Your task to perform on an android device: set the timer Image 0: 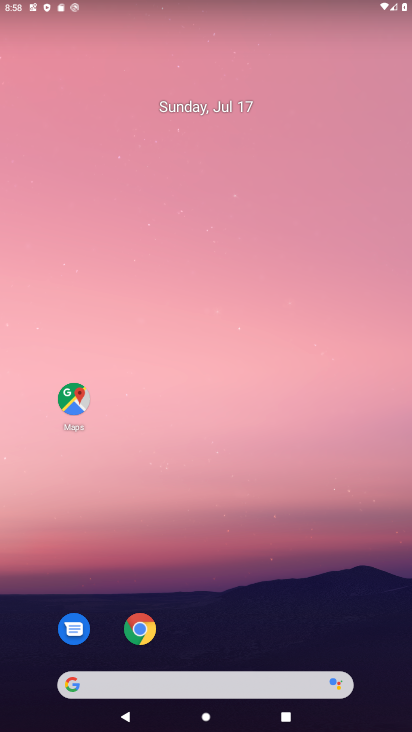
Step 0: drag from (238, 730) to (203, 60)
Your task to perform on an android device: set the timer Image 1: 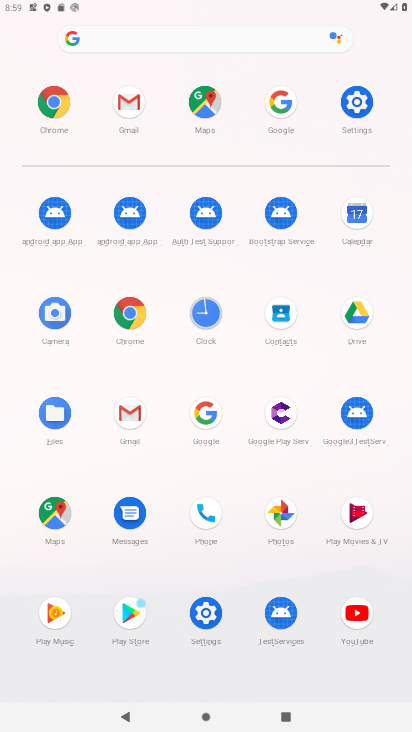
Step 1: click (199, 312)
Your task to perform on an android device: set the timer Image 2: 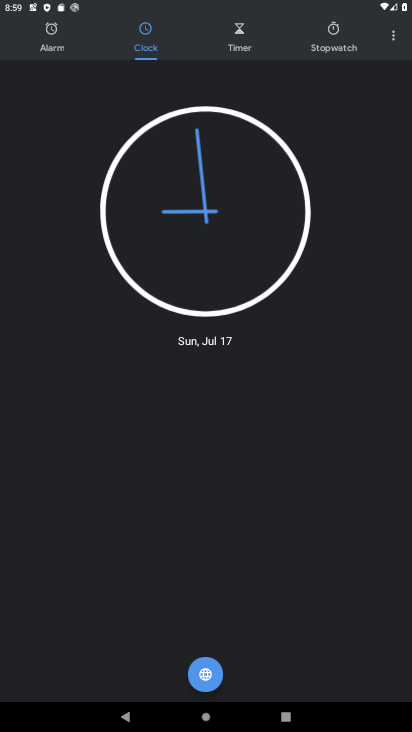
Step 2: click (241, 34)
Your task to perform on an android device: set the timer Image 3: 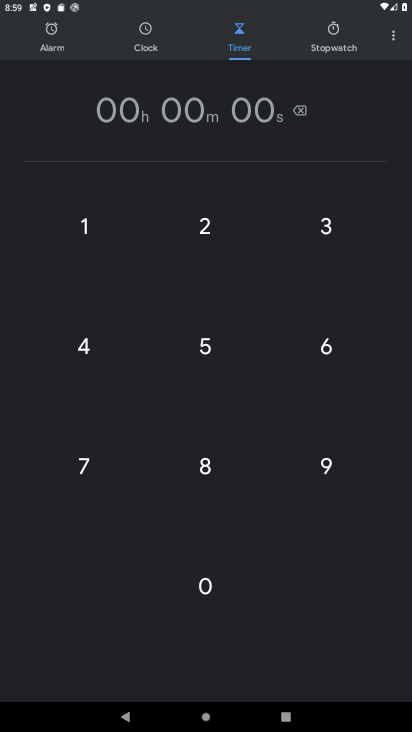
Step 3: click (204, 470)
Your task to perform on an android device: set the timer Image 4: 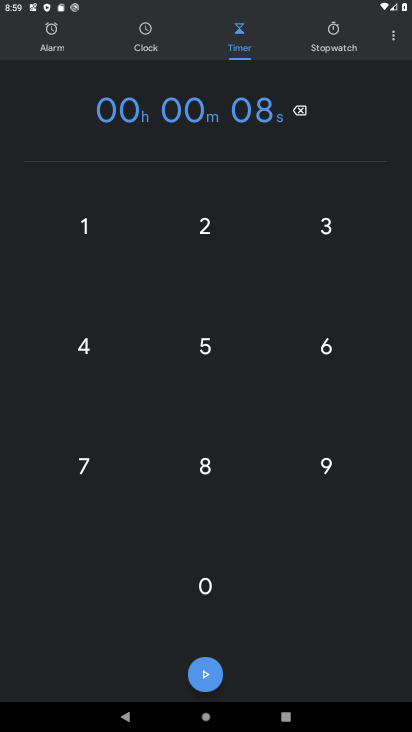
Step 4: click (199, 336)
Your task to perform on an android device: set the timer Image 5: 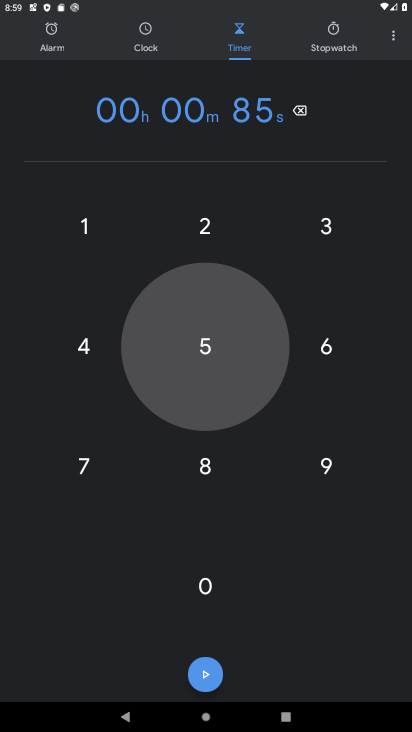
Step 5: click (82, 351)
Your task to perform on an android device: set the timer Image 6: 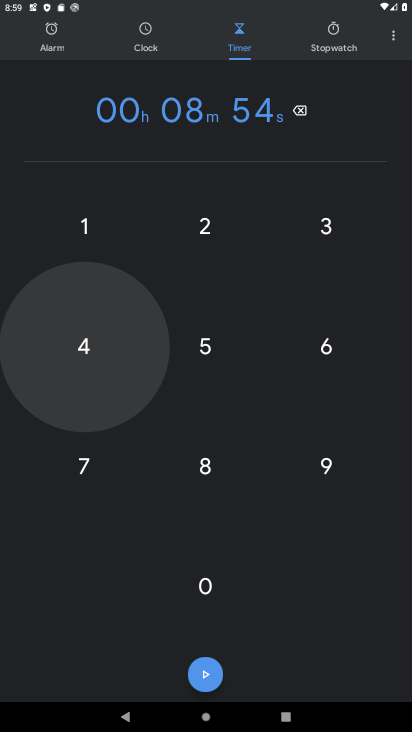
Step 6: click (87, 238)
Your task to perform on an android device: set the timer Image 7: 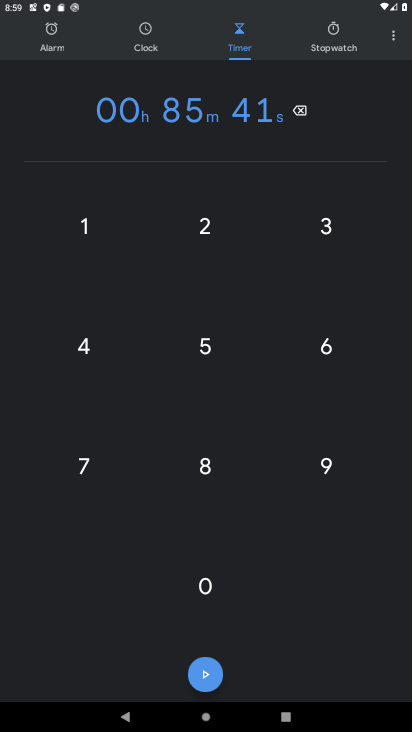
Step 7: click (202, 675)
Your task to perform on an android device: set the timer Image 8: 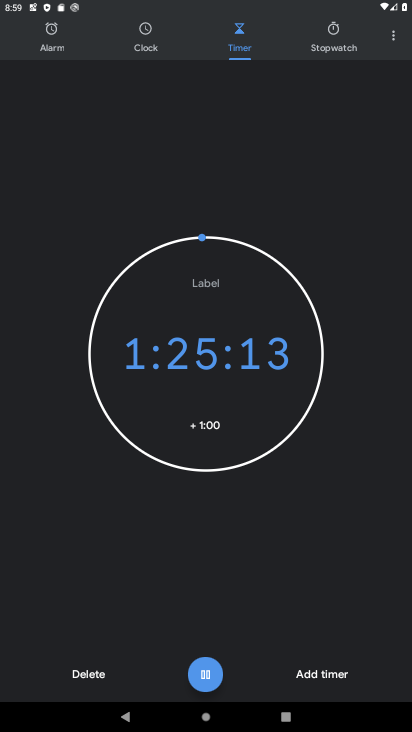
Step 8: task complete